Your task to perform on an android device: install app "Lyft - Rideshare, Bikes, Scooters & Transit" Image 0: 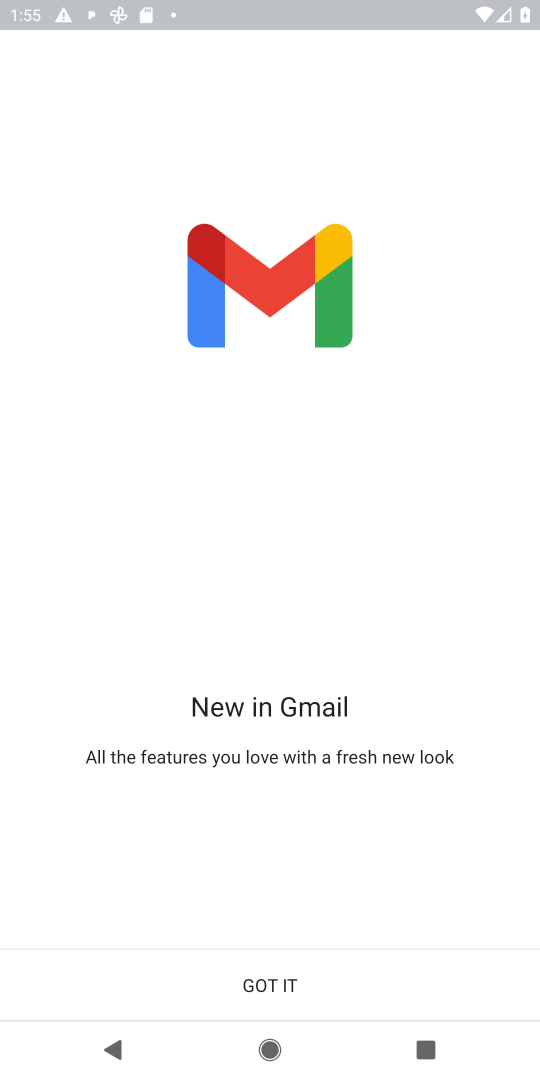
Step 0: press home button
Your task to perform on an android device: install app "Lyft - Rideshare, Bikes, Scooters & Transit" Image 1: 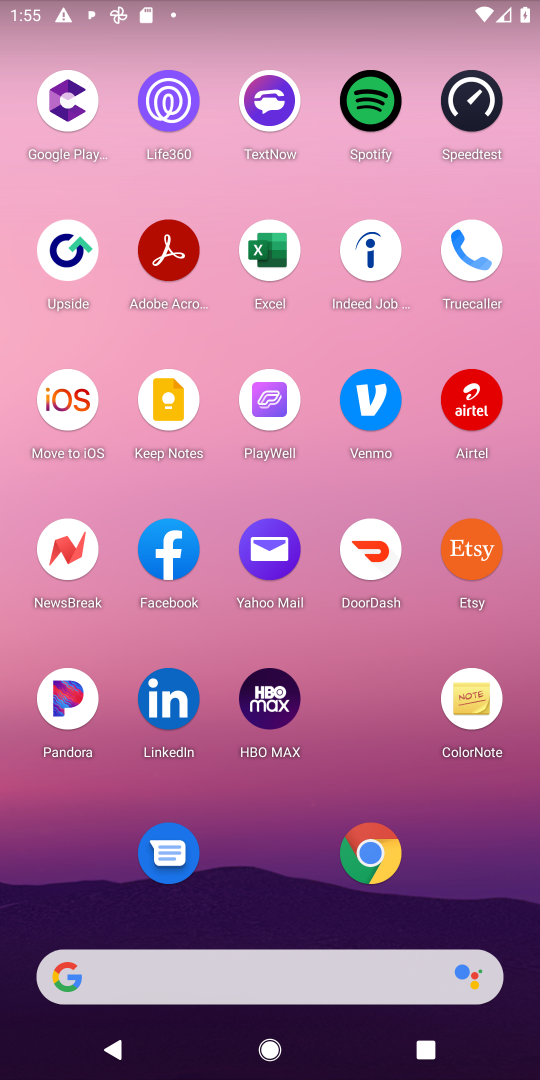
Step 1: drag from (262, 863) to (381, 151)
Your task to perform on an android device: install app "Lyft - Rideshare, Bikes, Scooters & Transit" Image 2: 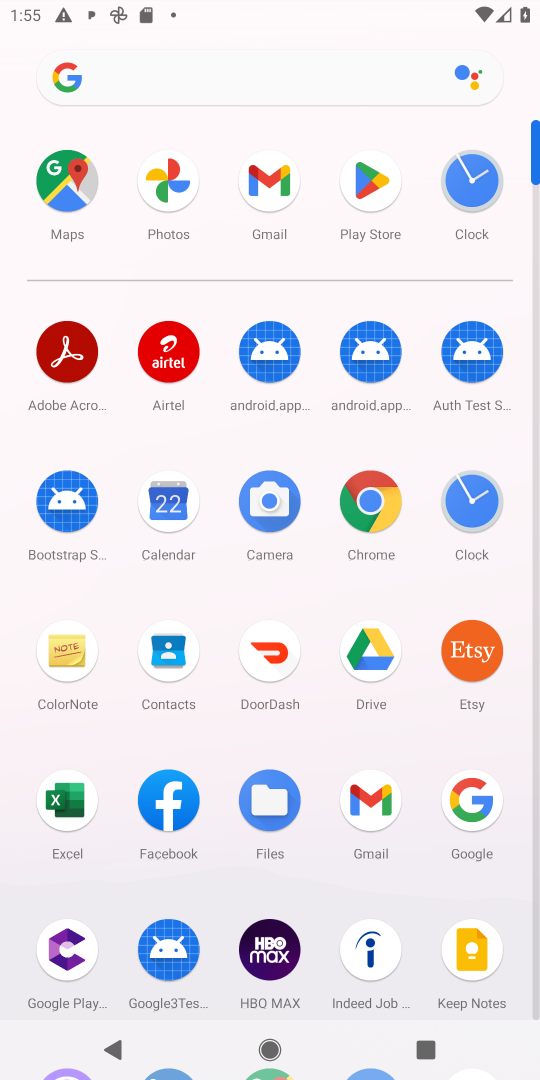
Step 2: click (383, 165)
Your task to perform on an android device: install app "Lyft - Rideshare, Bikes, Scooters & Transit" Image 3: 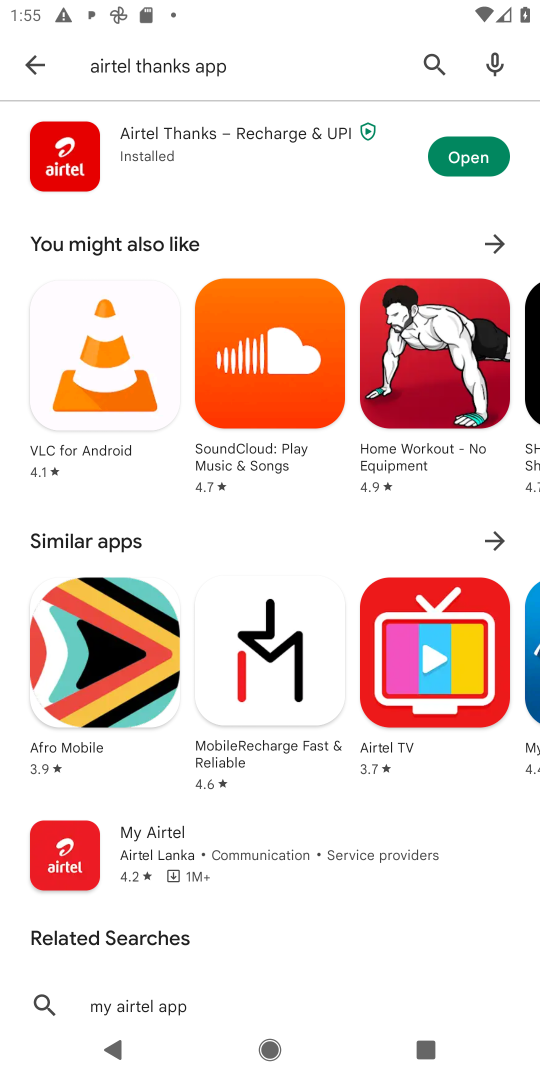
Step 3: click (33, 78)
Your task to perform on an android device: install app "Lyft - Rideshare, Bikes, Scooters & Transit" Image 4: 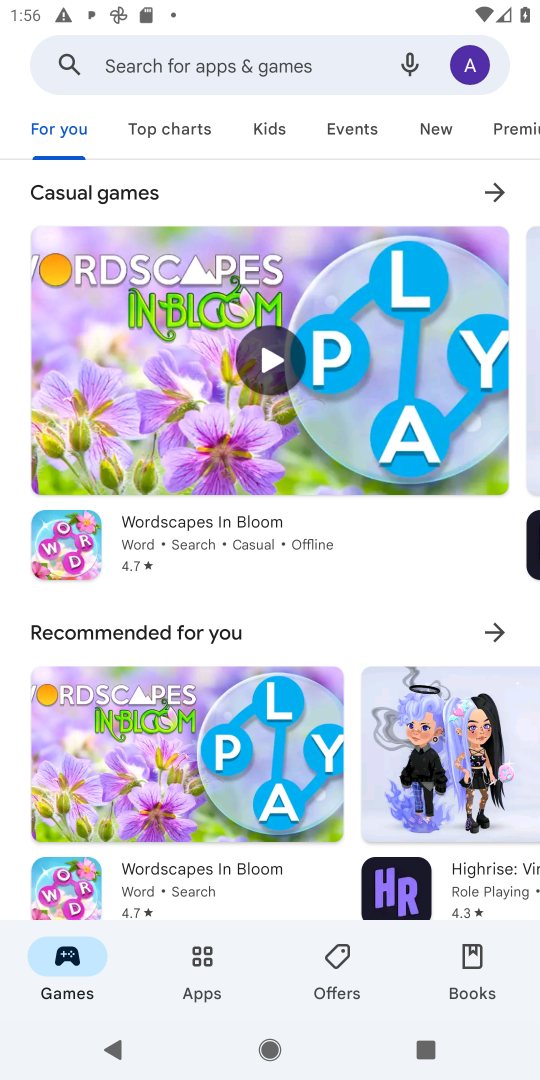
Step 4: click (198, 56)
Your task to perform on an android device: install app "Lyft - Rideshare, Bikes, Scooters & Transit" Image 5: 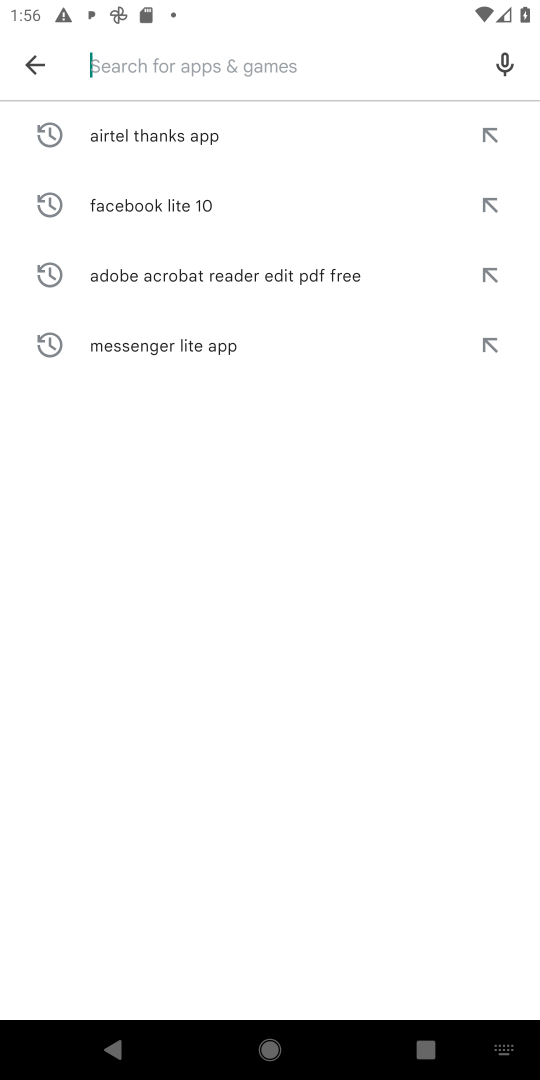
Step 5: type "Lyft "
Your task to perform on an android device: install app "Lyft - Rideshare, Bikes, Scooters & Transit" Image 6: 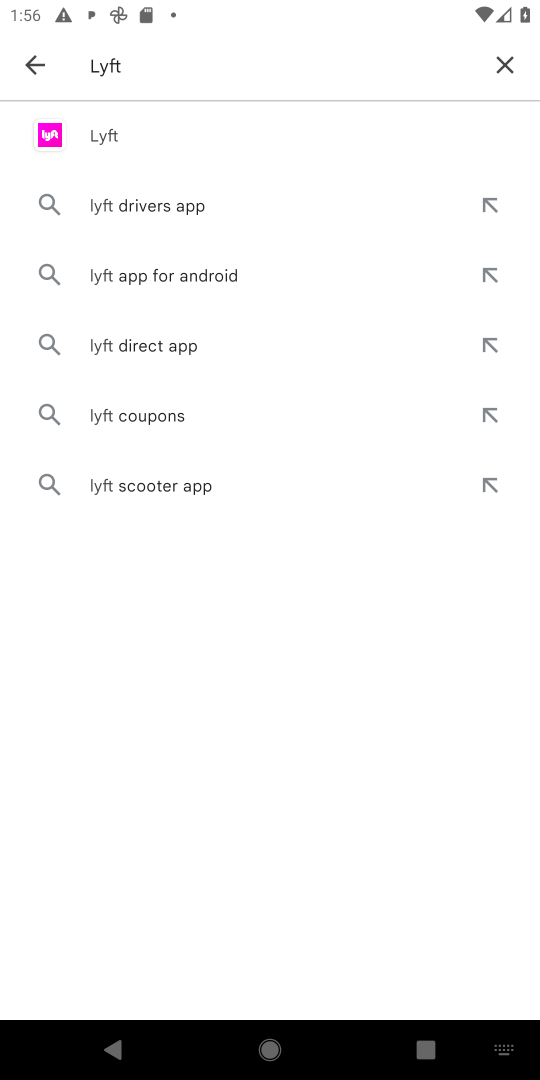
Step 6: click (124, 148)
Your task to perform on an android device: install app "Lyft - Rideshare, Bikes, Scooters & Transit" Image 7: 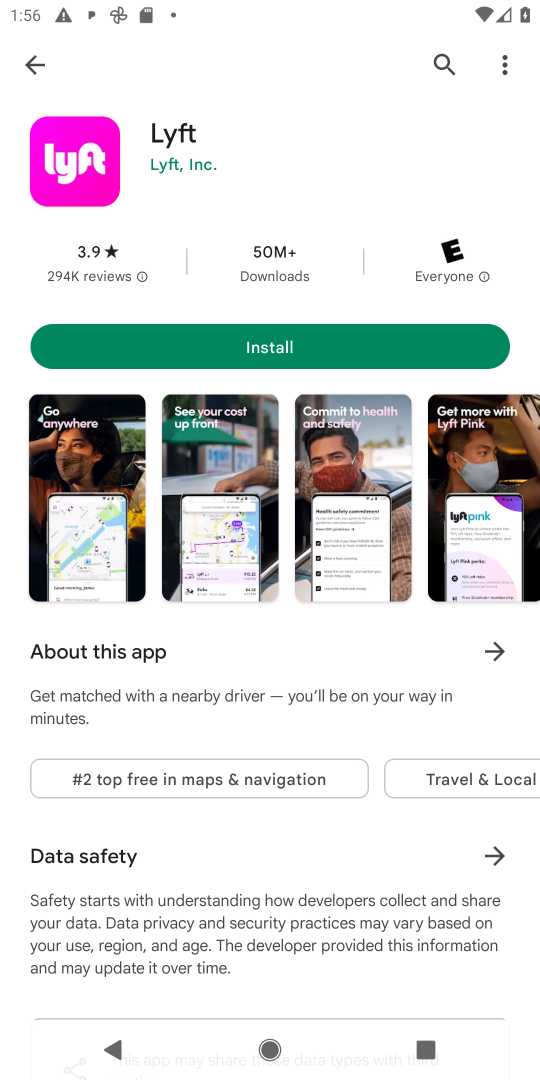
Step 7: click (341, 333)
Your task to perform on an android device: install app "Lyft - Rideshare, Bikes, Scooters & Transit" Image 8: 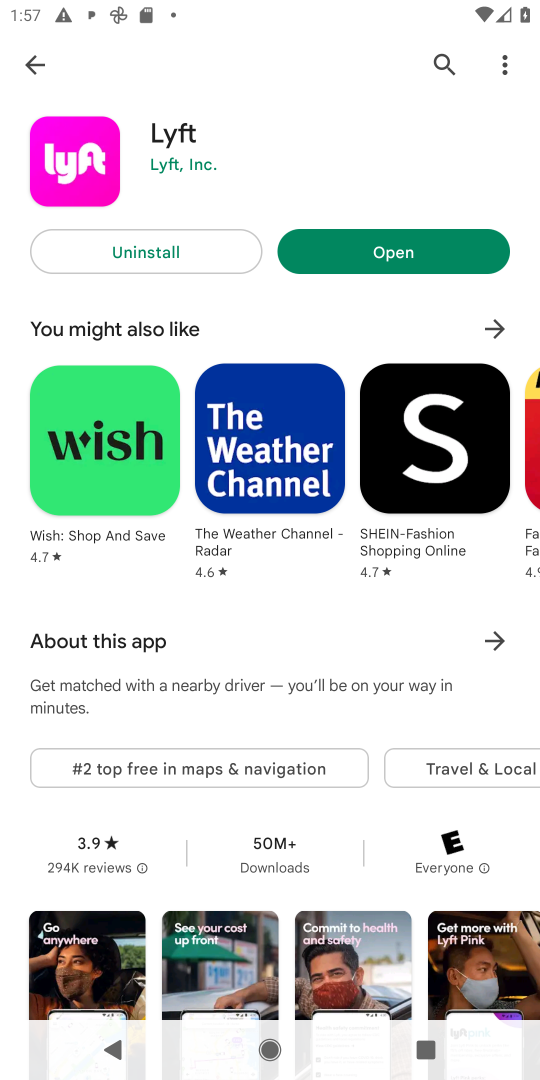
Step 8: click (423, 252)
Your task to perform on an android device: install app "Lyft - Rideshare, Bikes, Scooters & Transit" Image 9: 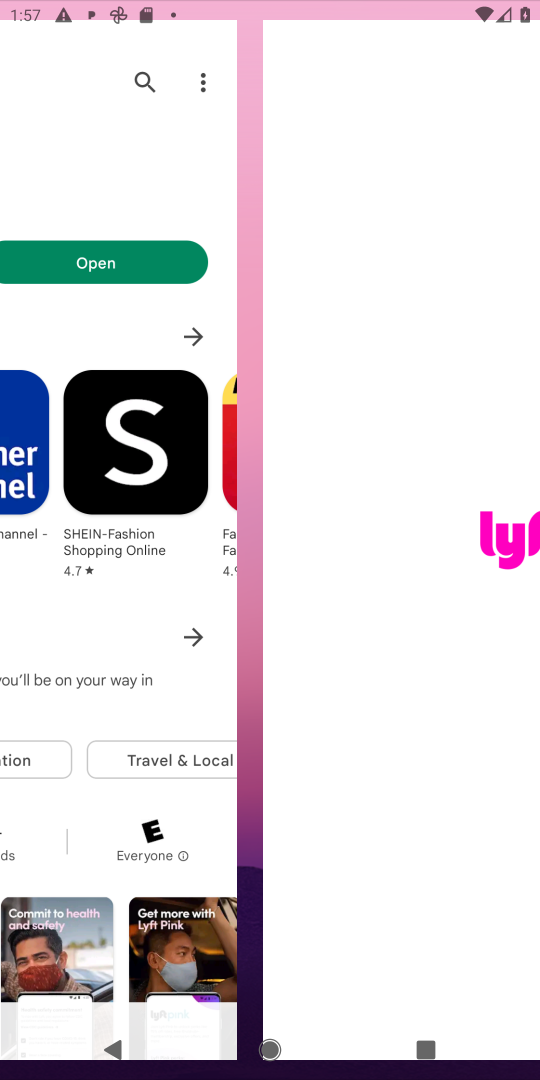
Step 9: task complete